Your task to perform on an android device: toggle priority inbox in the gmail app Image 0: 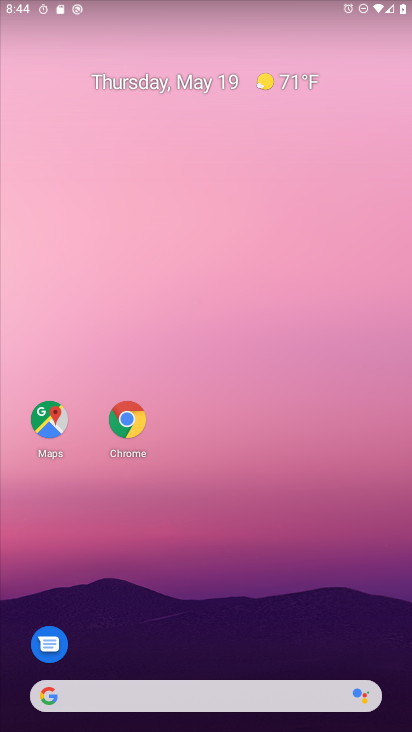
Step 0: drag from (228, 676) to (223, 365)
Your task to perform on an android device: toggle priority inbox in the gmail app Image 1: 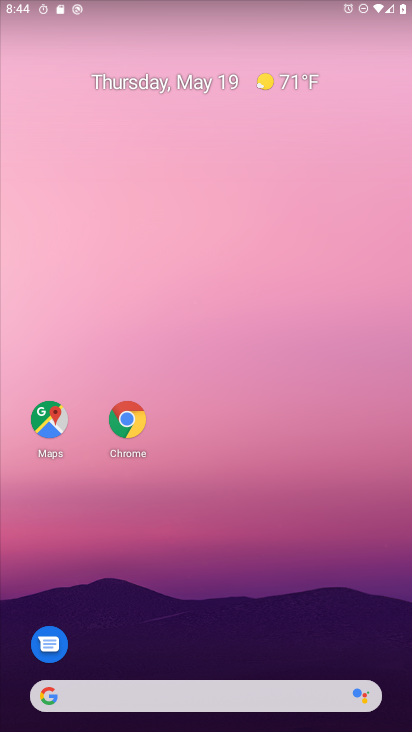
Step 1: drag from (166, 660) to (164, 227)
Your task to perform on an android device: toggle priority inbox in the gmail app Image 2: 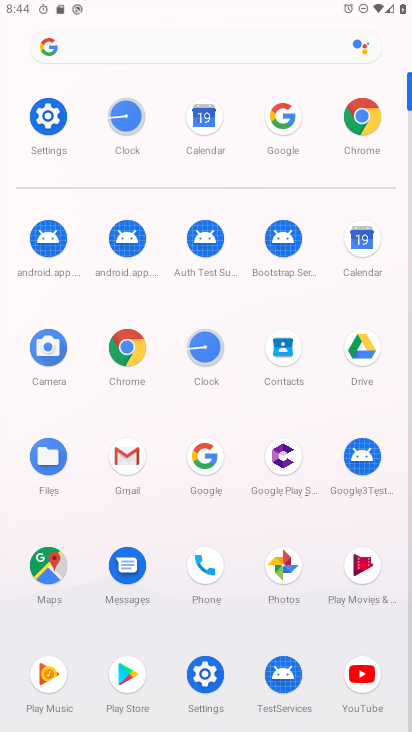
Step 2: click (129, 459)
Your task to perform on an android device: toggle priority inbox in the gmail app Image 3: 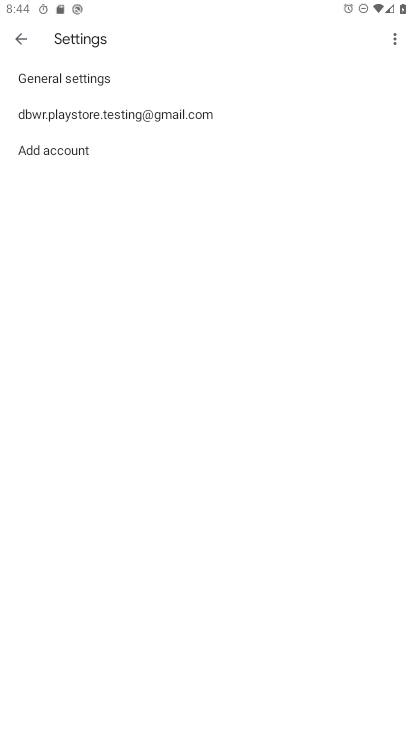
Step 3: click (24, 34)
Your task to perform on an android device: toggle priority inbox in the gmail app Image 4: 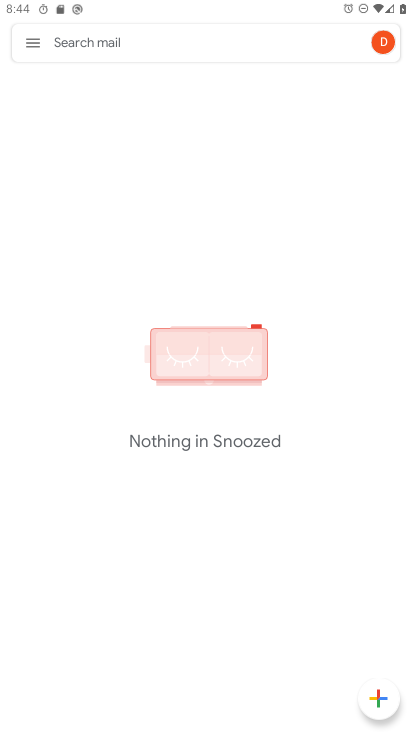
Step 4: click (30, 39)
Your task to perform on an android device: toggle priority inbox in the gmail app Image 5: 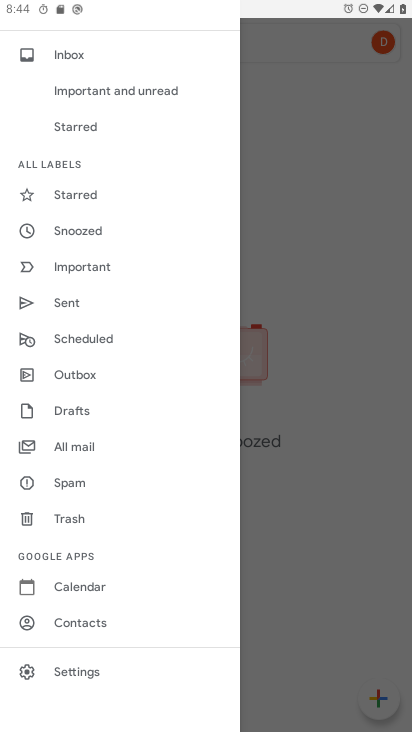
Step 5: click (85, 668)
Your task to perform on an android device: toggle priority inbox in the gmail app Image 6: 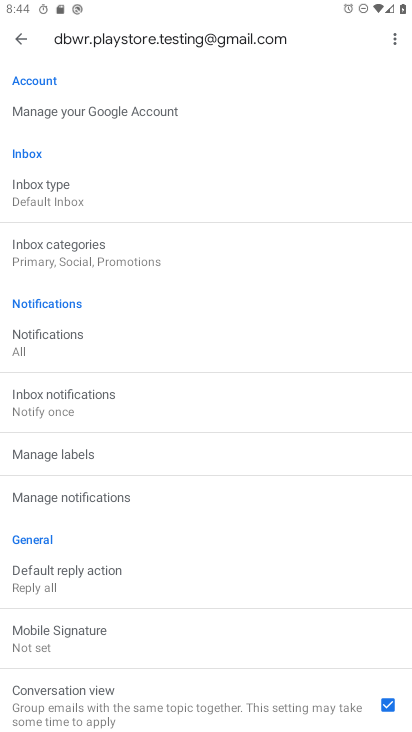
Step 6: click (64, 200)
Your task to perform on an android device: toggle priority inbox in the gmail app Image 7: 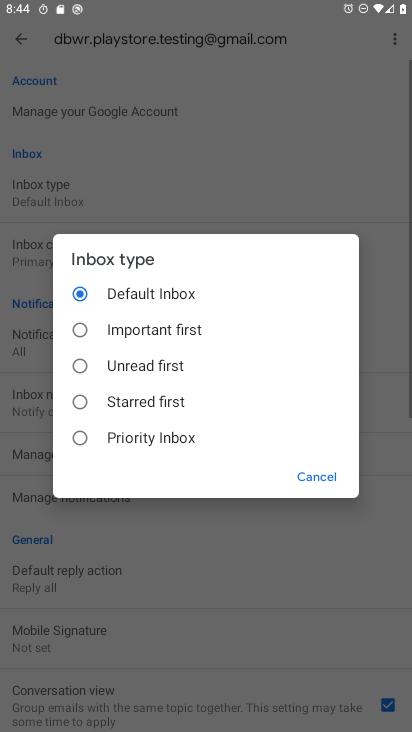
Step 7: click (103, 434)
Your task to perform on an android device: toggle priority inbox in the gmail app Image 8: 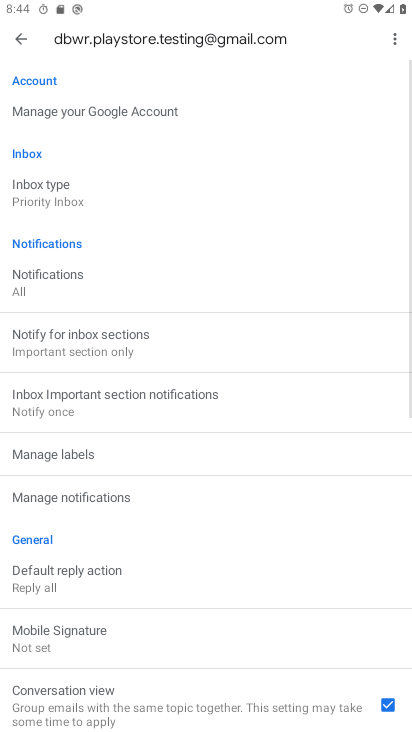
Step 8: task complete